Your task to perform on an android device: Open the calendar app, open the side menu, and click the "Day" option Image 0: 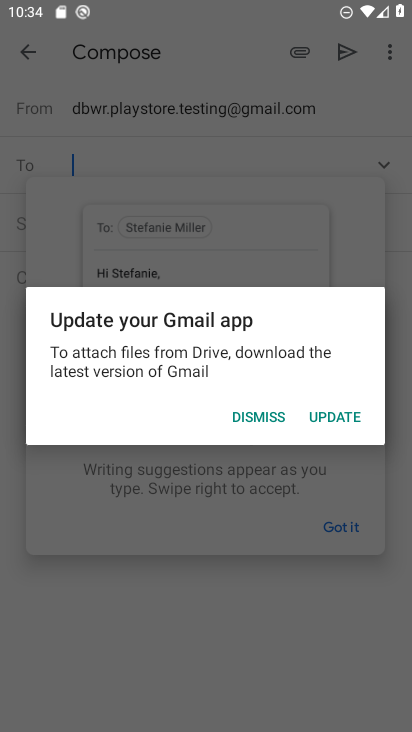
Step 0: press home button
Your task to perform on an android device: Open the calendar app, open the side menu, and click the "Day" option Image 1: 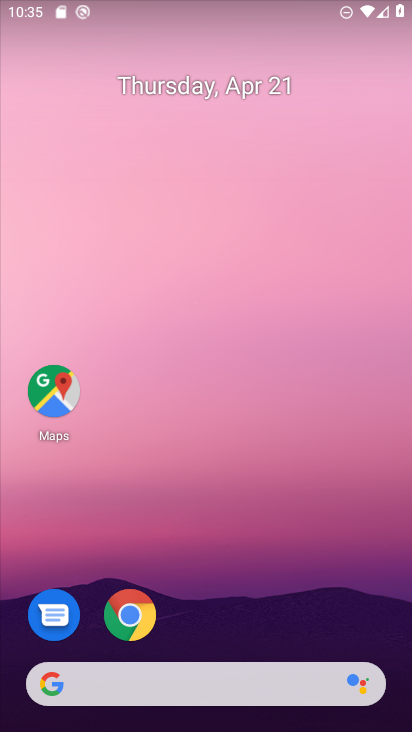
Step 1: drag from (224, 546) to (211, 183)
Your task to perform on an android device: Open the calendar app, open the side menu, and click the "Day" option Image 2: 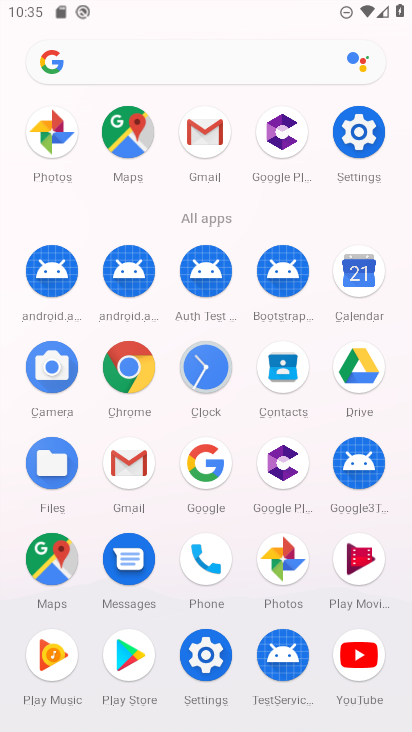
Step 2: click (356, 277)
Your task to perform on an android device: Open the calendar app, open the side menu, and click the "Day" option Image 3: 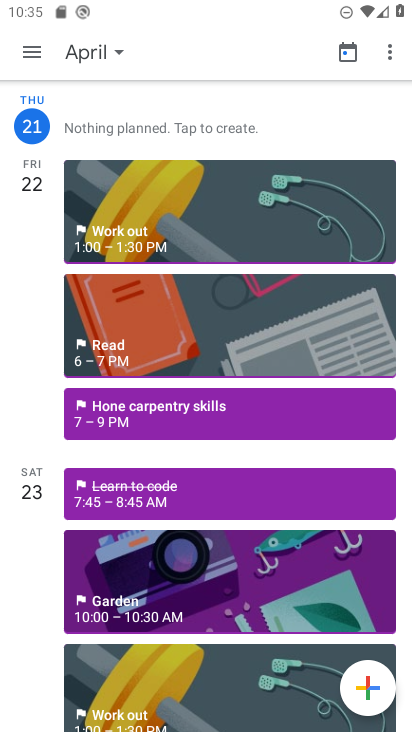
Step 3: click (33, 51)
Your task to perform on an android device: Open the calendar app, open the side menu, and click the "Day" option Image 4: 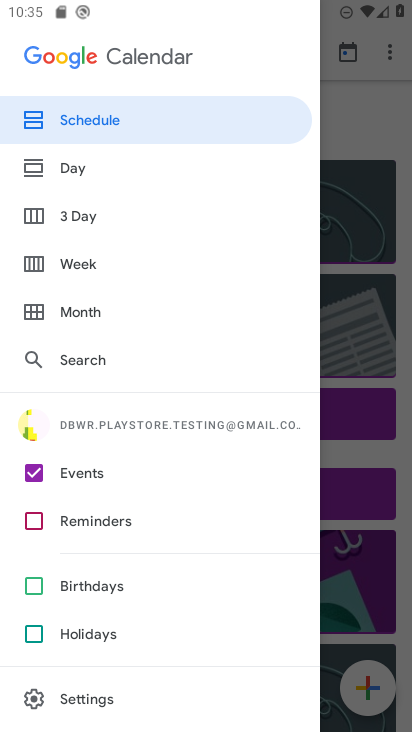
Step 4: click (73, 168)
Your task to perform on an android device: Open the calendar app, open the side menu, and click the "Day" option Image 5: 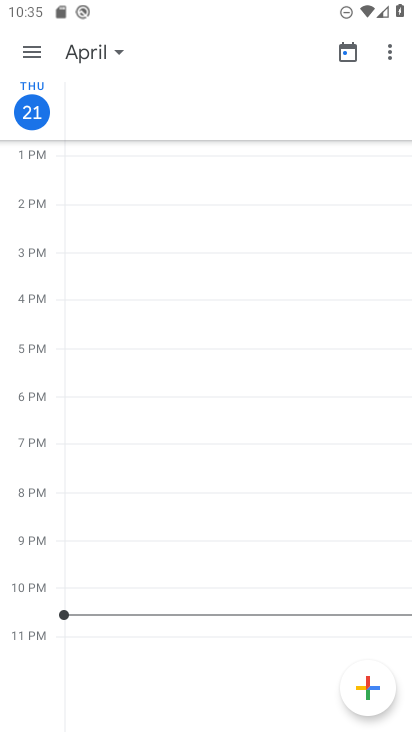
Step 5: task complete